Your task to perform on an android device: Go to display settings Image 0: 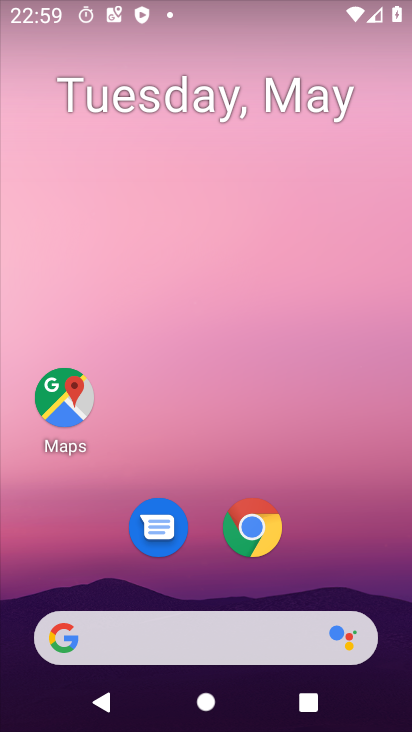
Step 0: drag from (222, 404) to (222, 98)
Your task to perform on an android device: Go to display settings Image 1: 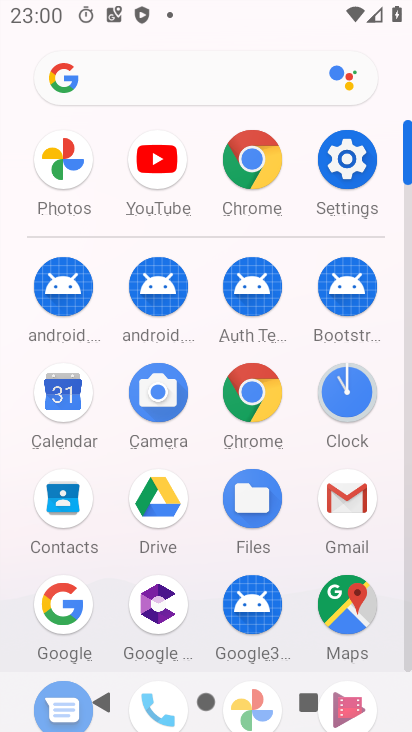
Step 1: click (350, 154)
Your task to perform on an android device: Go to display settings Image 2: 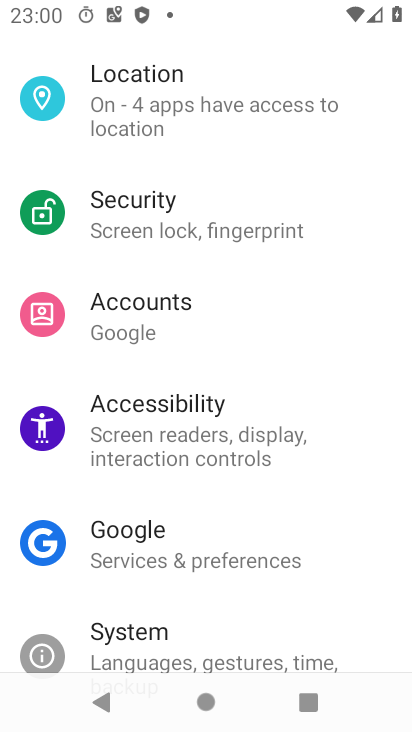
Step 2: drag from (235, 512) to (298, 80)
Your task to perform on an android device: Go to display settings Image 3: 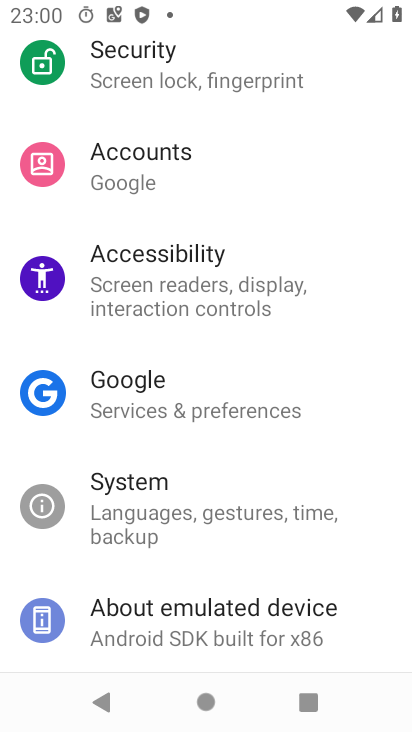
Step 3: drag from (229, 109) to (199, 730)
Your task to perform on an android device: Go to display settings Image 4: 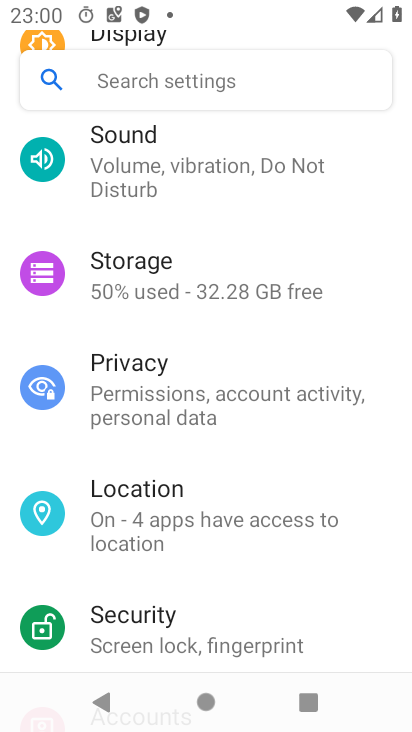
Step 4: drag from (198, 249) to (366, 722)
Your task to perform on an android device: Go to display settings Image 5: 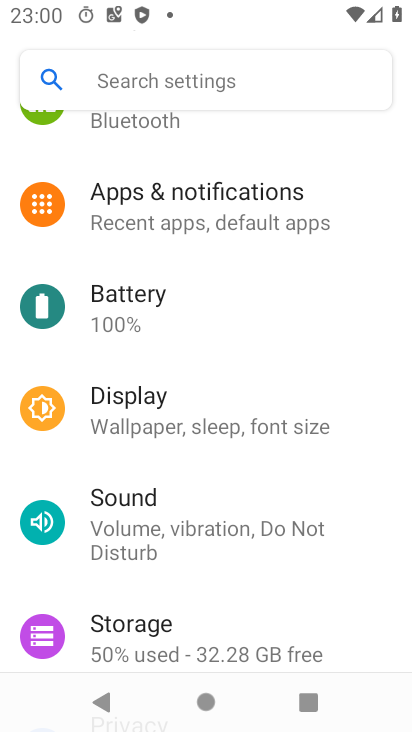
Step 5: click (161, 412)
Your task to perform on an android device: Go to display settings Image 6: 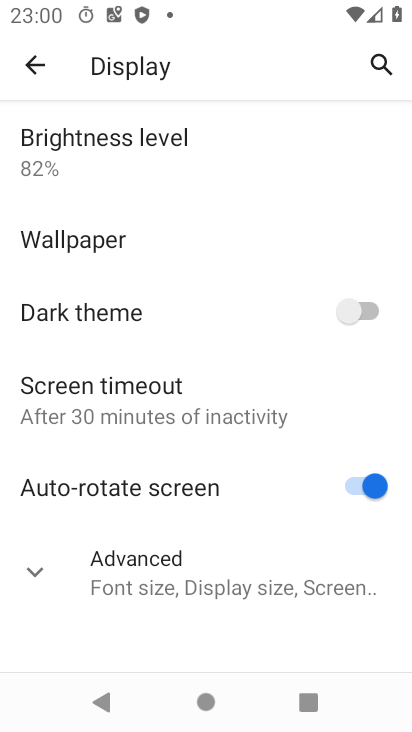
Step 6: task complete